Your task to perform on an android device: turn notification dots on Image 0: 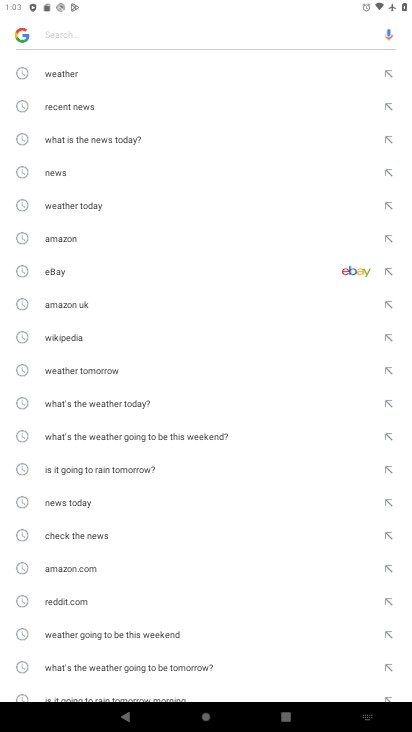
Step 0: press home button
Your task to perform on an android device: turn notification dots on Image 1: 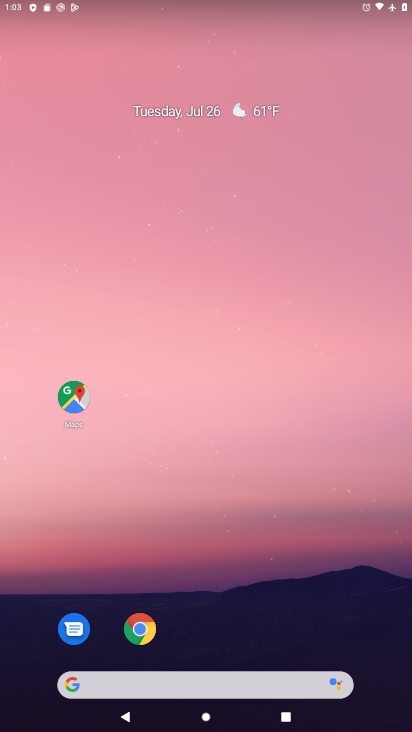
Step 1: drag from (229, 653) to (214, 4)
Your task to perform on an android device: turn notification dots on Image 2: 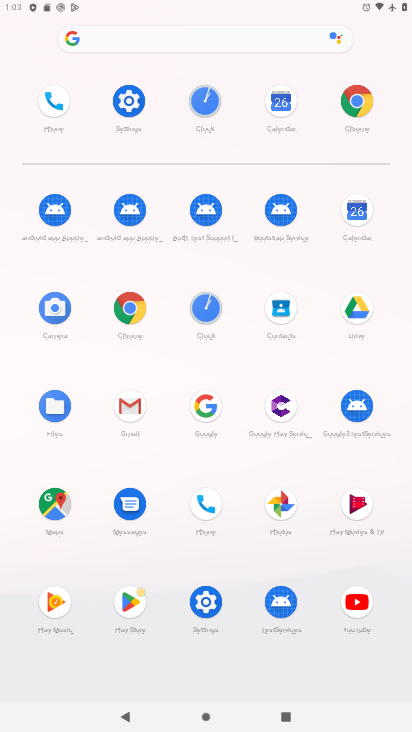
Step 2: click (119, 113)
Your task to perform on an android device: turn notification dots on Image 3: 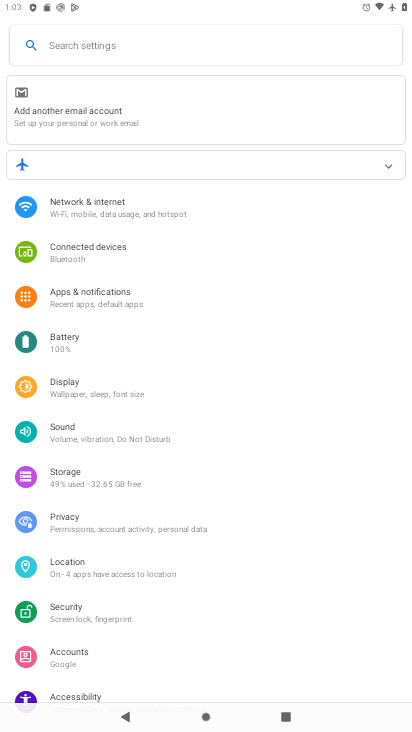
Step 3: click (99, 292)
Your task to perform on an android device: turn notification dots on Image 4: 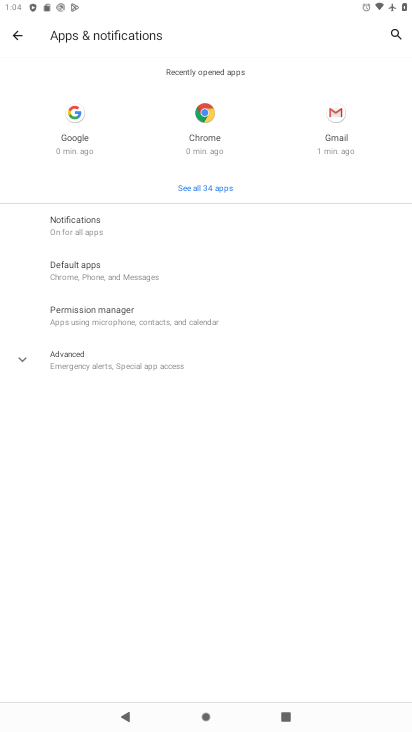
Step 4: click (67, 225)
Your task to perform on an android device: turn notification dots on Image 5: 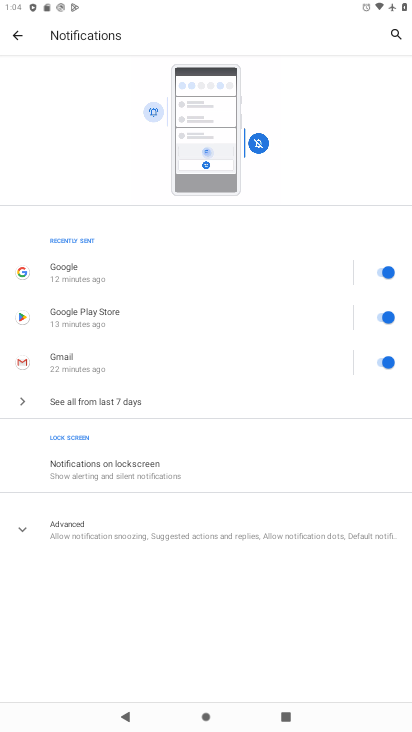
Step 5: click (156, 520)
Your task to perform on an android device: turn notification dots on Image 6: 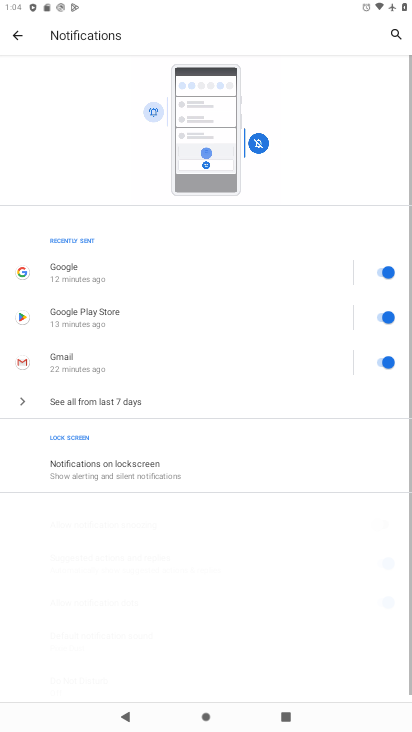
Step 6: task complete